Your task to perform on an android device: open app "Microsoft Excel" (install if not already installed) and go to login screen Image 0: 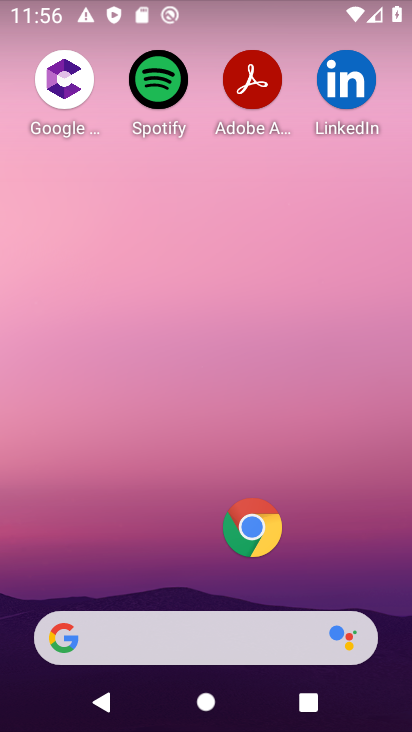
Step 0: drag from (89, 541) to (155, 20)
Your task to perform on an android device: open app "Microsoft Excel" (install if not already installed) and go to login screen Image 1: 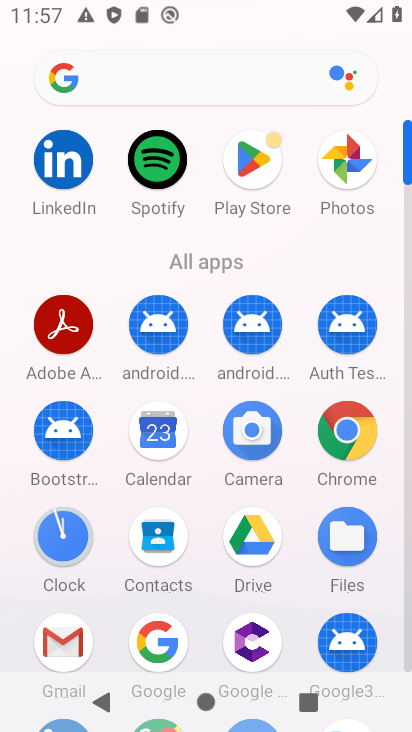
Step 1: click (255, 149)
Your task to perform on an android device: open app "Microsoft Excel" (install if not already installed) and go to login screen Image 2: 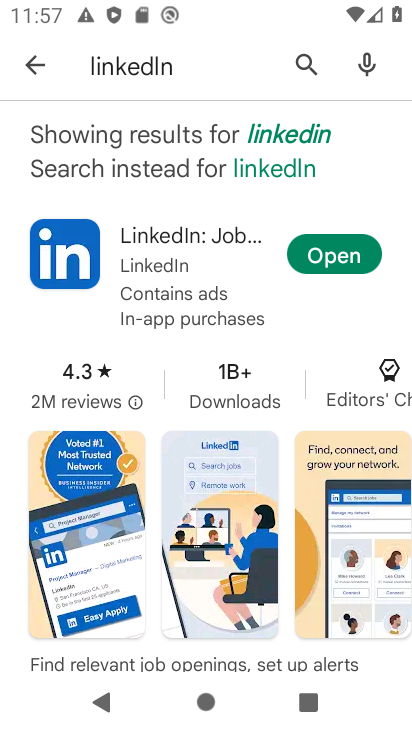
Step 2: click (316, 76)
Your task to perform on an android device: open app "Microsoft Excel" (install if not already installed) and go to login screen Image 3: 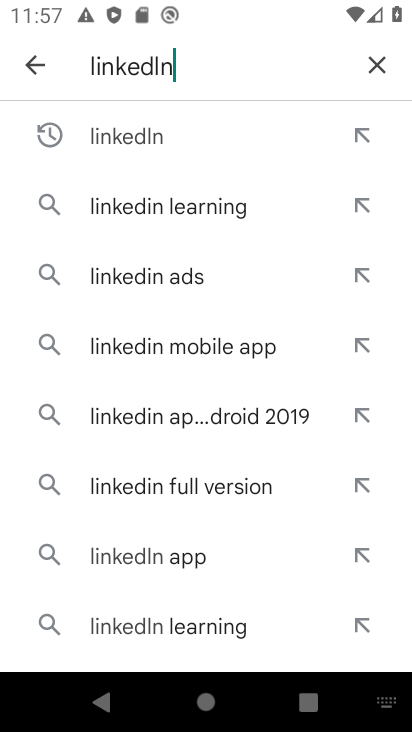
Step 3: click (376, 53)
Your task to perform on an android device: open app "Microsoft Excel" (install if not already installed) and go to login screen Image 4: 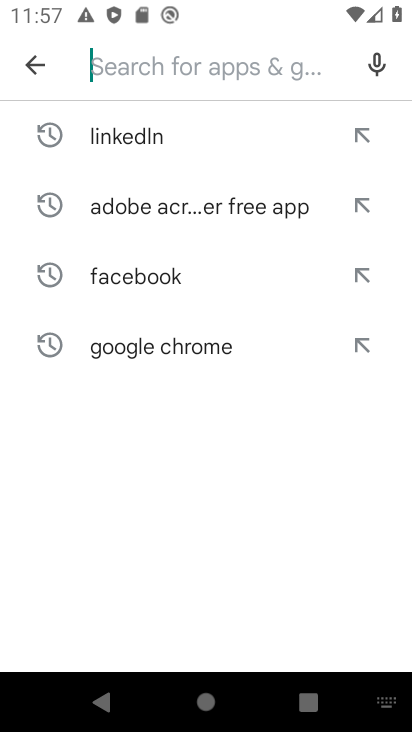
Step 4: click (154, 61)
Your task to perform on an android device: open app "Microsoft Excel" (install if not already installed) and go to login screen Image 5: 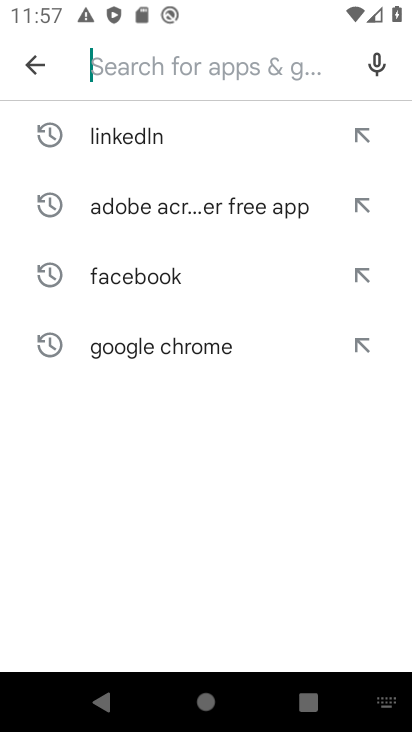
Step 5: type "Microsoft Exce"
Your task to perform on an android device: open app "Microsoft Excel" (install if not already installed) and go to login screen Image 6: 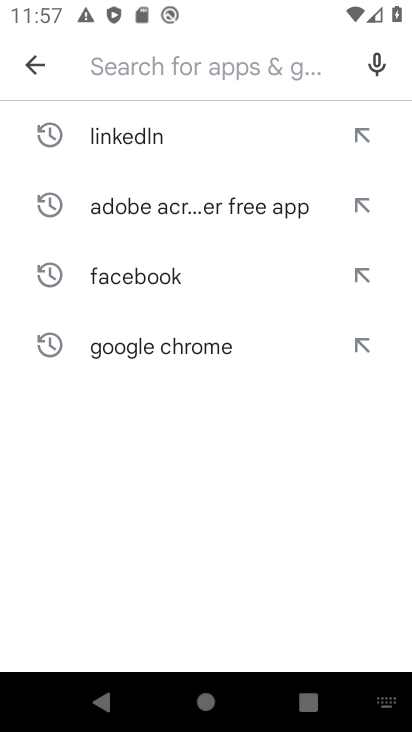
Step 6: click (199, 526)
Your task to perform on an android device: open app "Microsoft Excel" (install if not already installed) and go to login screen Image 7: 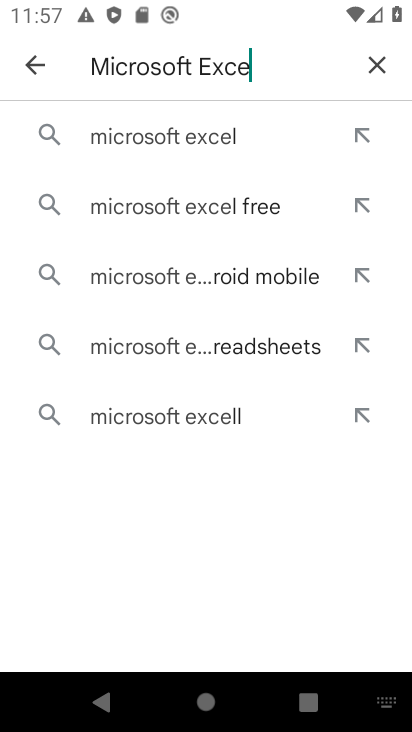
Step 7: click (152, 119)
Your task to perform on an android device: open app "Microsoft Excel" (install if not already installed) and go to login screen Image 8: 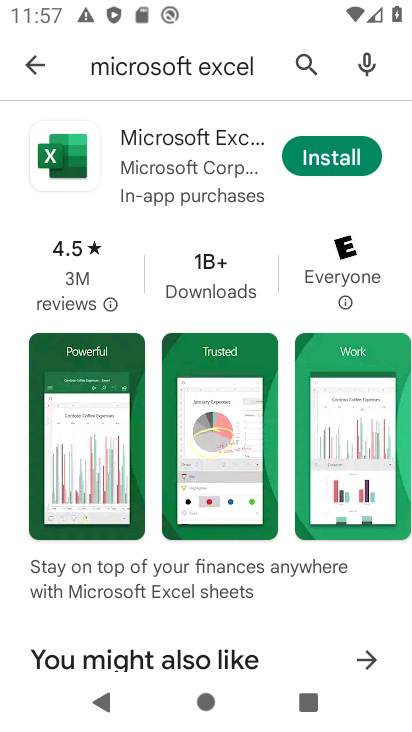
Step 8: click (322, 160)
Your task to perform on an android device: open app "Microsoft Excel" (install if not already installed) and go to login screen Image 9: 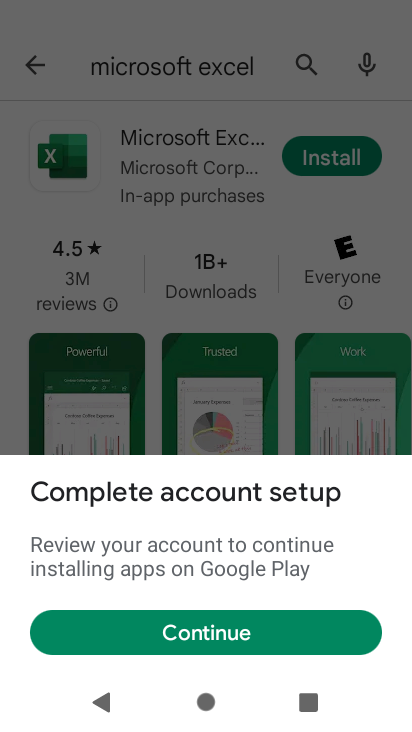
Step 9: click (204, 627)
Your task to perform on an android device: open app "Microsoft Excel" (install if not already installed) and go to login screen Image 10: 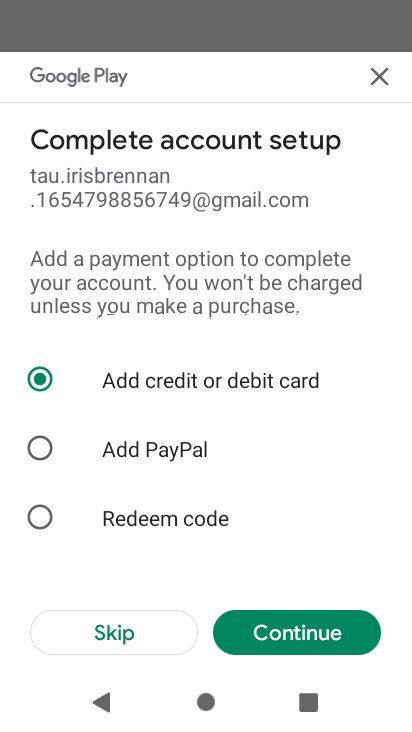
Step 10: click (100, 626)
Your task to perform on an android device: open app "Microsoft Excel" (install if not already installed) and go to login screen Image 11: 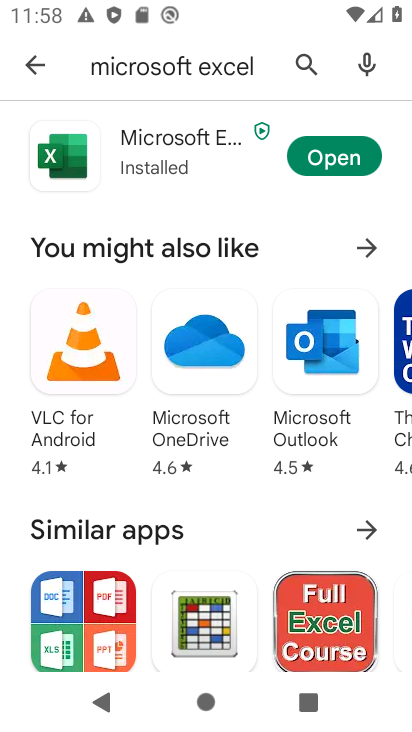
Step 11: click (328, 158)
Your task to perform on an android device: open app "Microsoft Excel" (install if not already installed) and go to login screen Image 12: 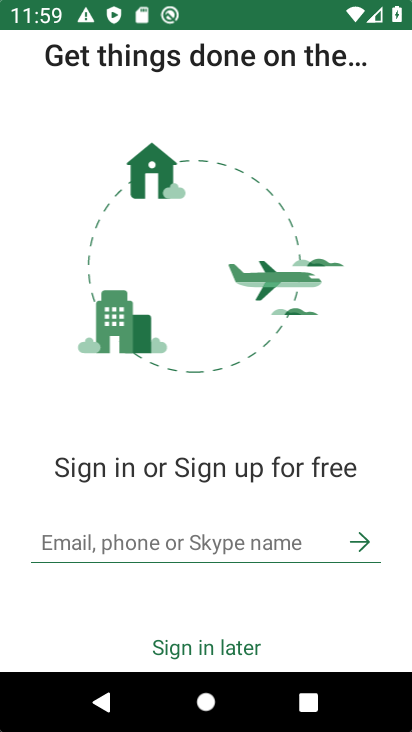
Step 12: task complete